Your task to perform on an android device: Open calendar and show me the fourth week of next month Image 0: 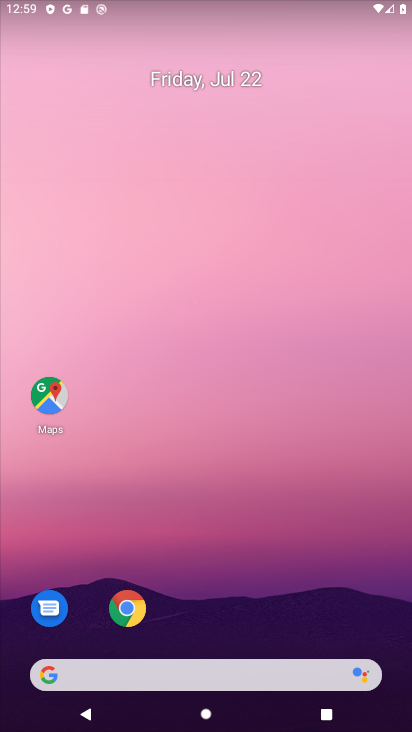
Step 0: drag from (242, 603) to (283, 83)
Your task to perform on an android device: Open calendar and show me the fourth week of next month Image 1: 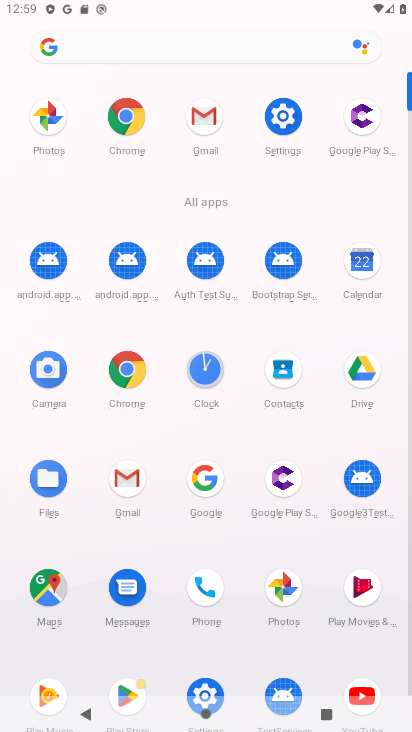
Step 1: click (349, 260)
Your task to perform on an android device: Open calendar and show me the fourth week of next month Image 2: 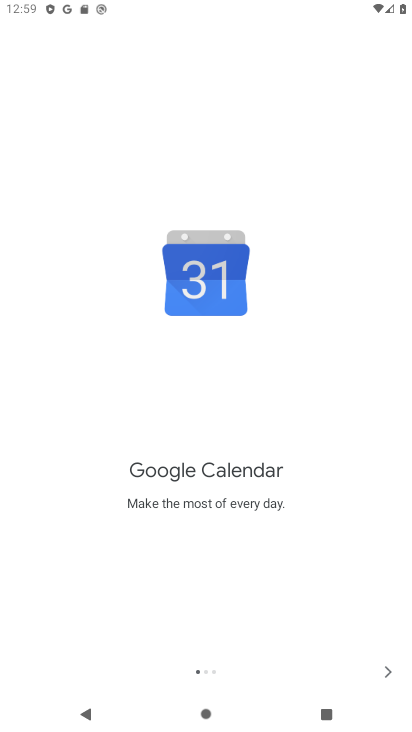
Step 2: click (391, 679)
Your task to perform on an android device: Open calendar and show me the fourth week of next month Image 3: 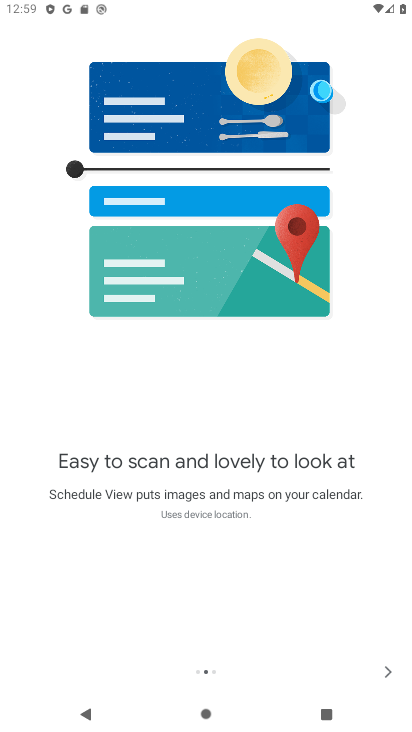
Step 3: click (391, 679)
Your task to perform on an android device: Open calendar and show me the fourth week of next month Image 4: 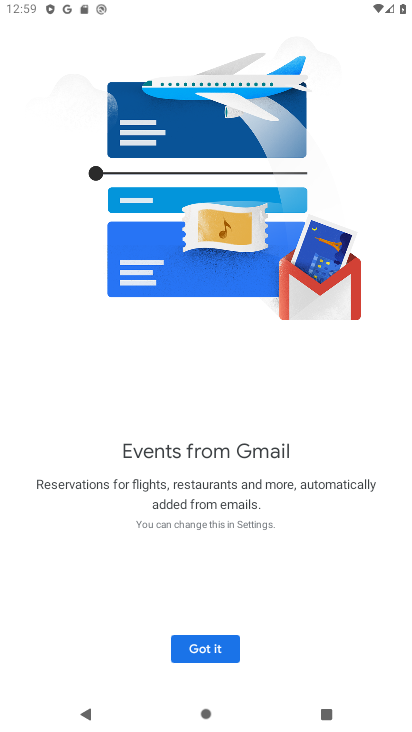
Step 4: click (183, 642)
Your task to perform on an android device: Open calendar and show me the fourth week of next month Image 5: 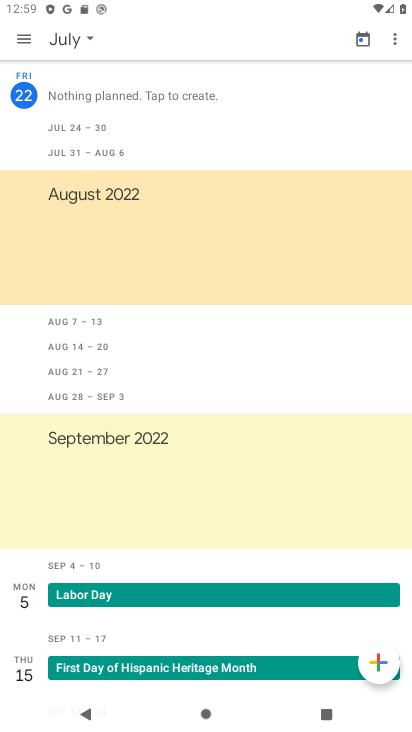
Step 5: click (16, 32)
Your task to perform on an android device: Open calendar and show me the fourth week of next month Image 6: 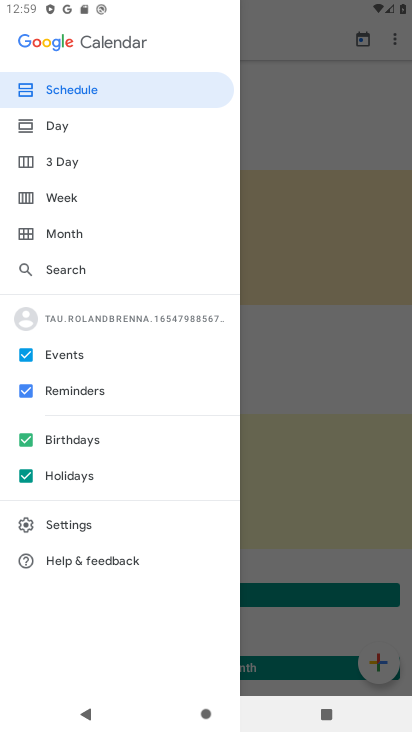
Step 6: click (16, 32)
Your task to perform on an android device: Open calendar and show me the fourth week of next month Image 7: 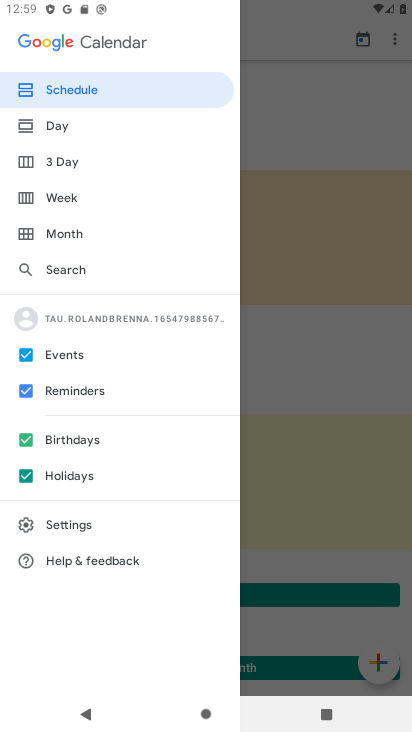
Step 7: click (66, 198)
Your task to perform on an android device: Open calendar and show me the fourth week of next month Image 8: 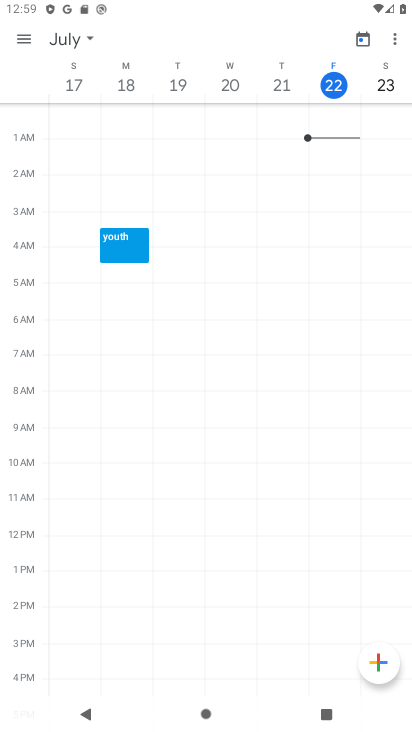
Step 8: click (61, 33)
Your task to perform on an android device: Open calendar and show me the fourth week of next month Image 9: 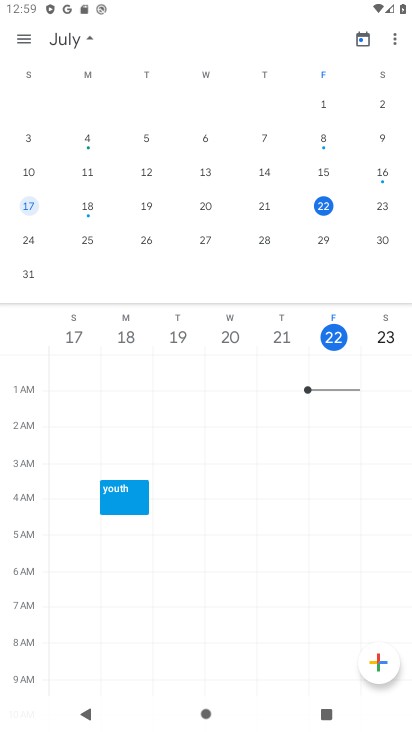
Step 9: click (204, 247)
Your task to perform on an android device: Open calendar and show me the fourth week of next month Image 10: 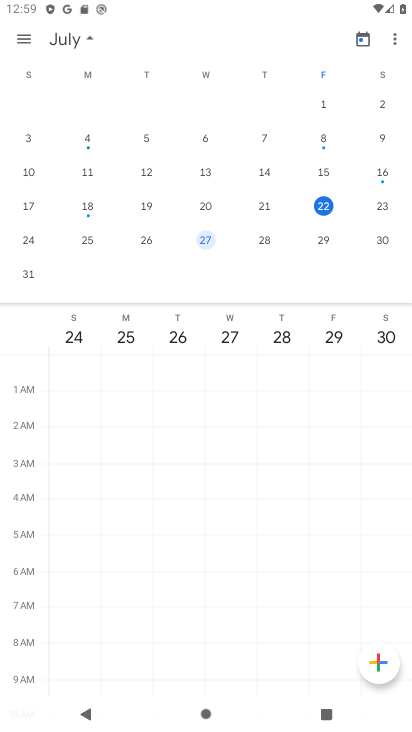
Step 10: task complete